Your task to perform on an android device: Add usb-a to usb-b to the cart on walmart Image 0: 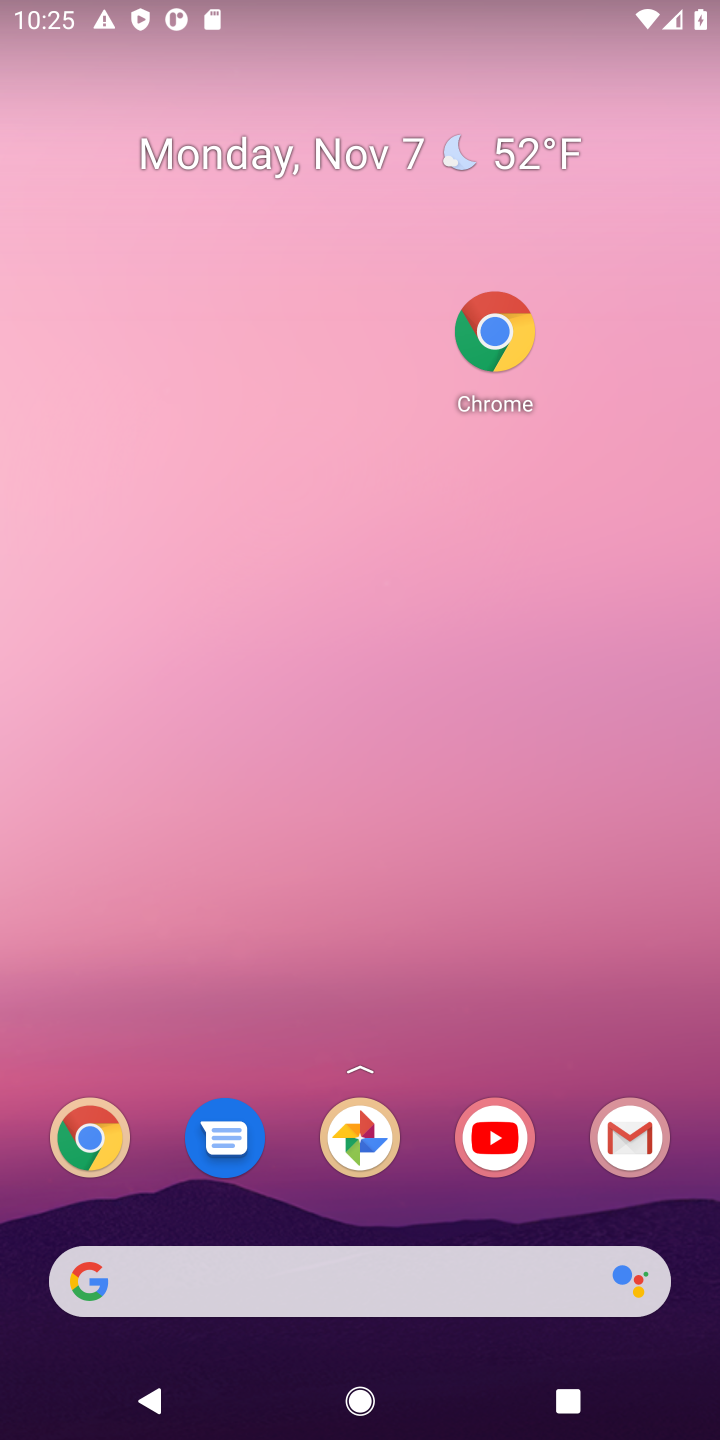
Step 0: drag from (435, 1124) to (323, 159)
Your task to perform on an android device: Add usb-a to usb-b to the cart on walmart Image 1: 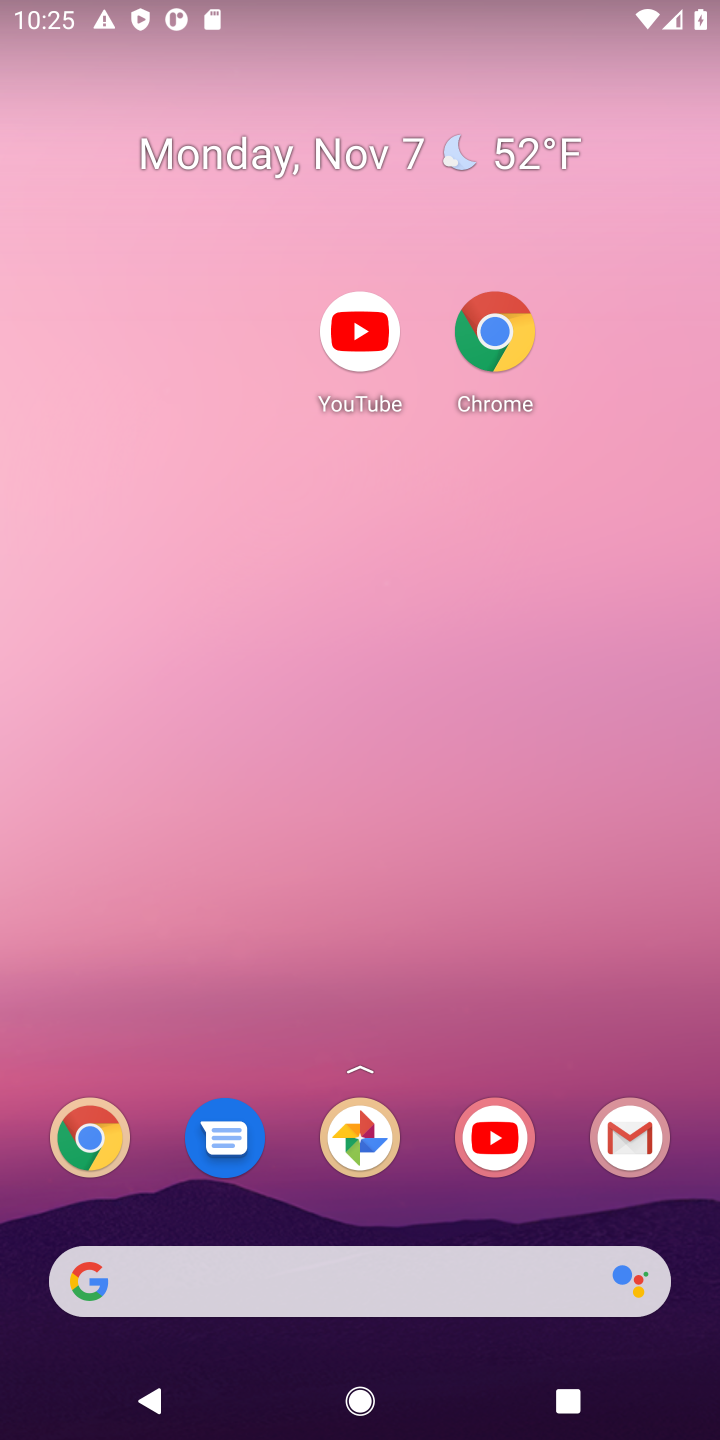
Step 1: drag from (417, 1060) to (363, 226)
Your task to perform on an android device: Add usb-a to usb-b to the cart on walmart Image 2: 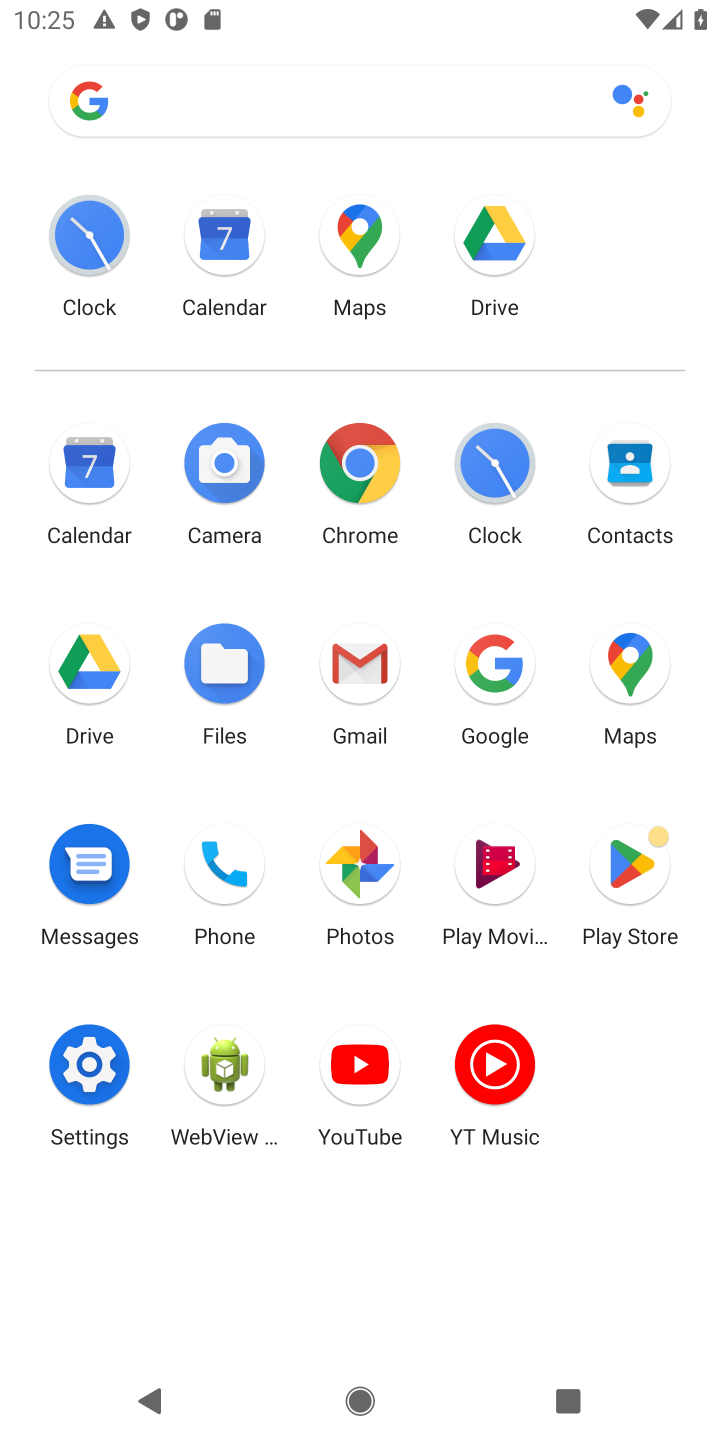
Step 2: click (352, 472)
Your task to perform on an android device: Add usb-a to usb-b to the cart on walmart Image 3: 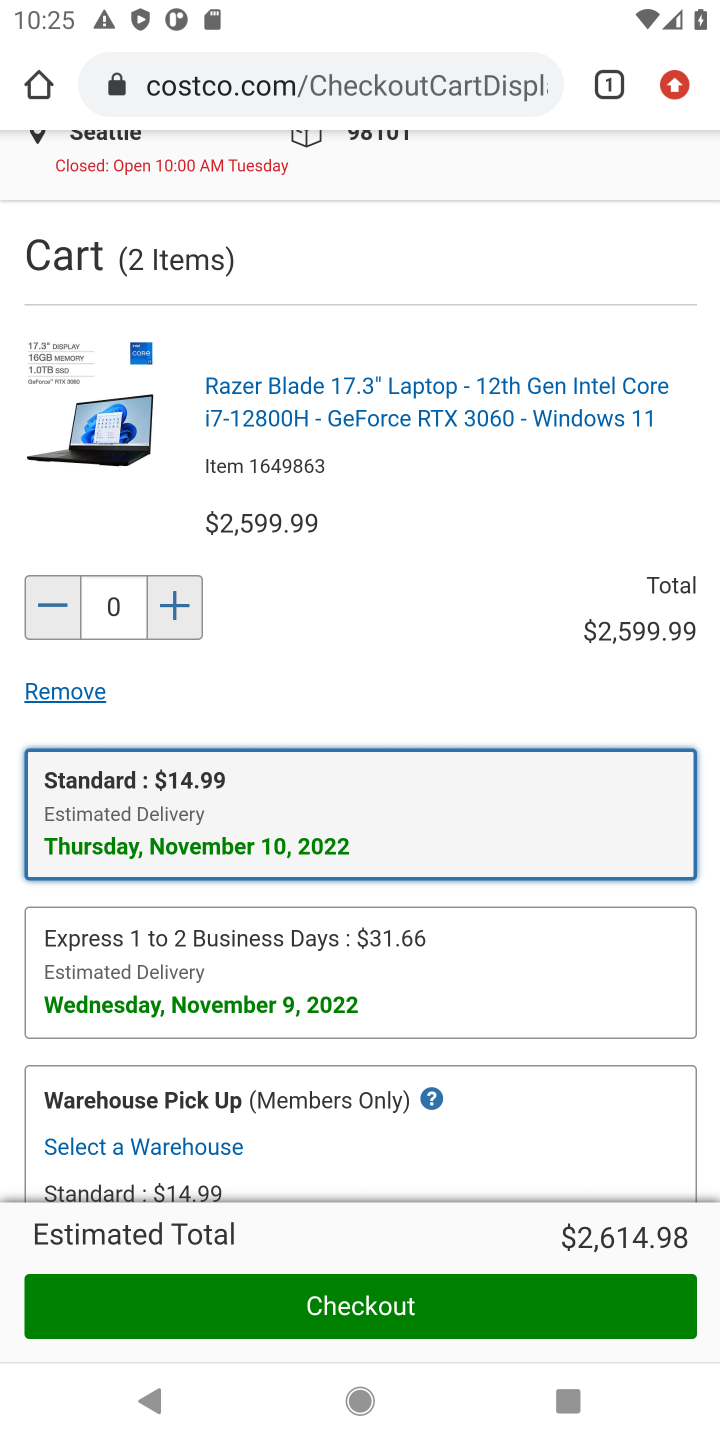
Step 3: click (365, 93)
Your task to perform on an android device: Add usb-a to usb-b to the cart on walmart Image 4: 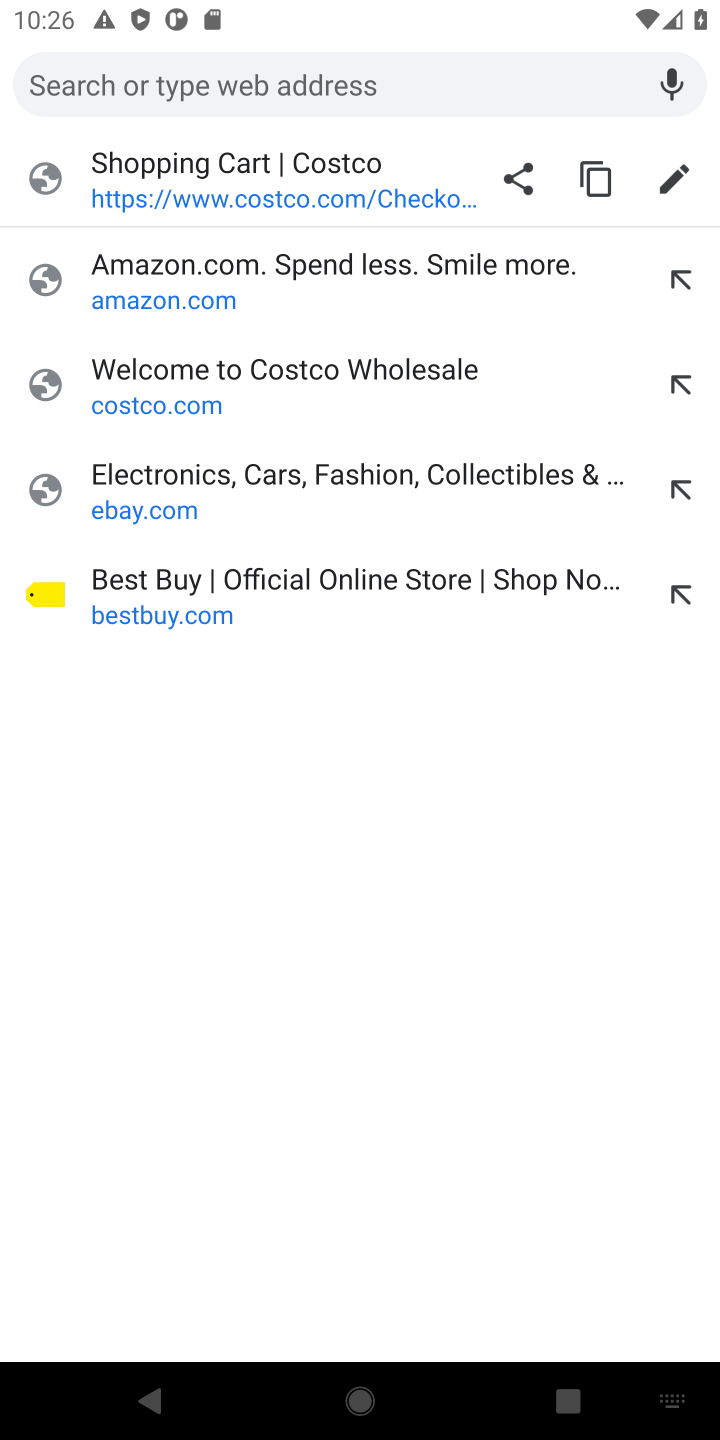
Step 4: type "walmart.com"
Your task to perform on an android device: Add usb-a to usb-b to the cart on walmart Image 5: 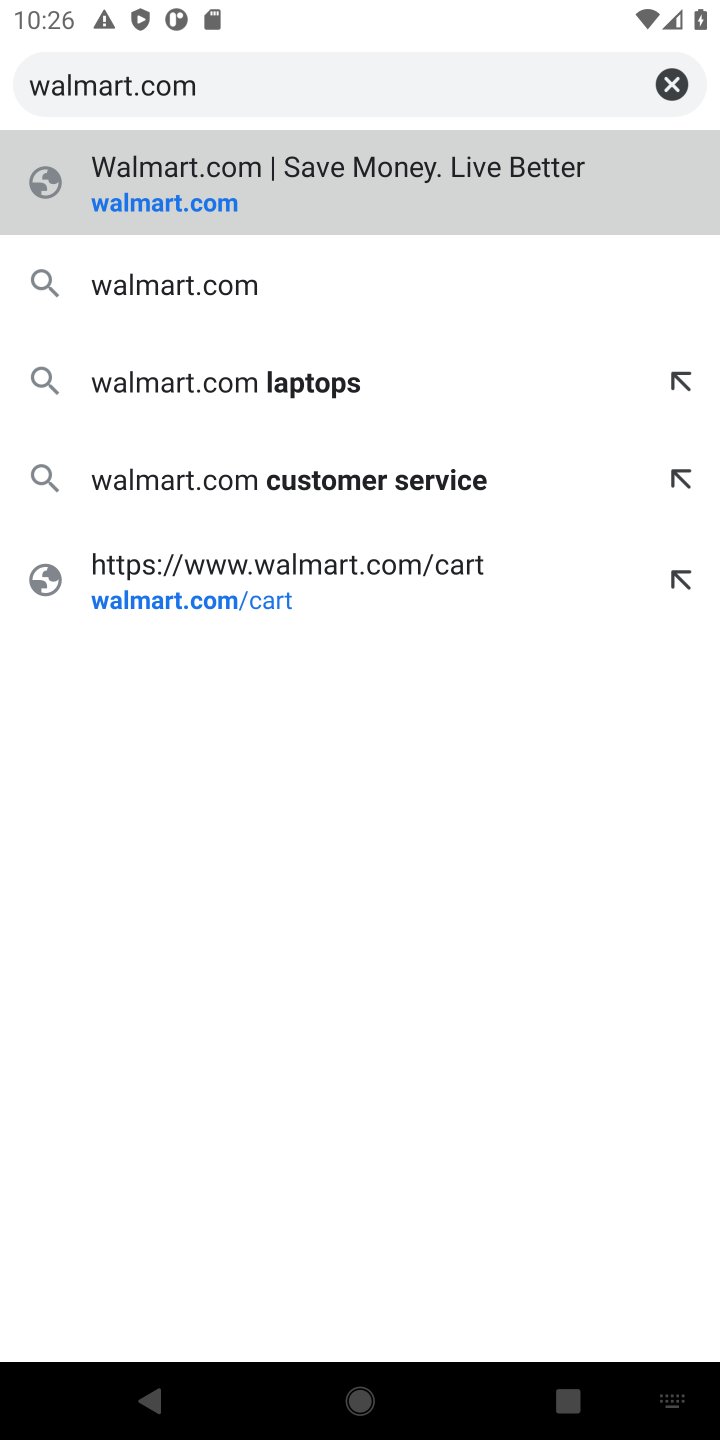
Step 5: press enter
Your task to perform on an android device: Add usb-a to usb-b to the cart on walmart Image 6: 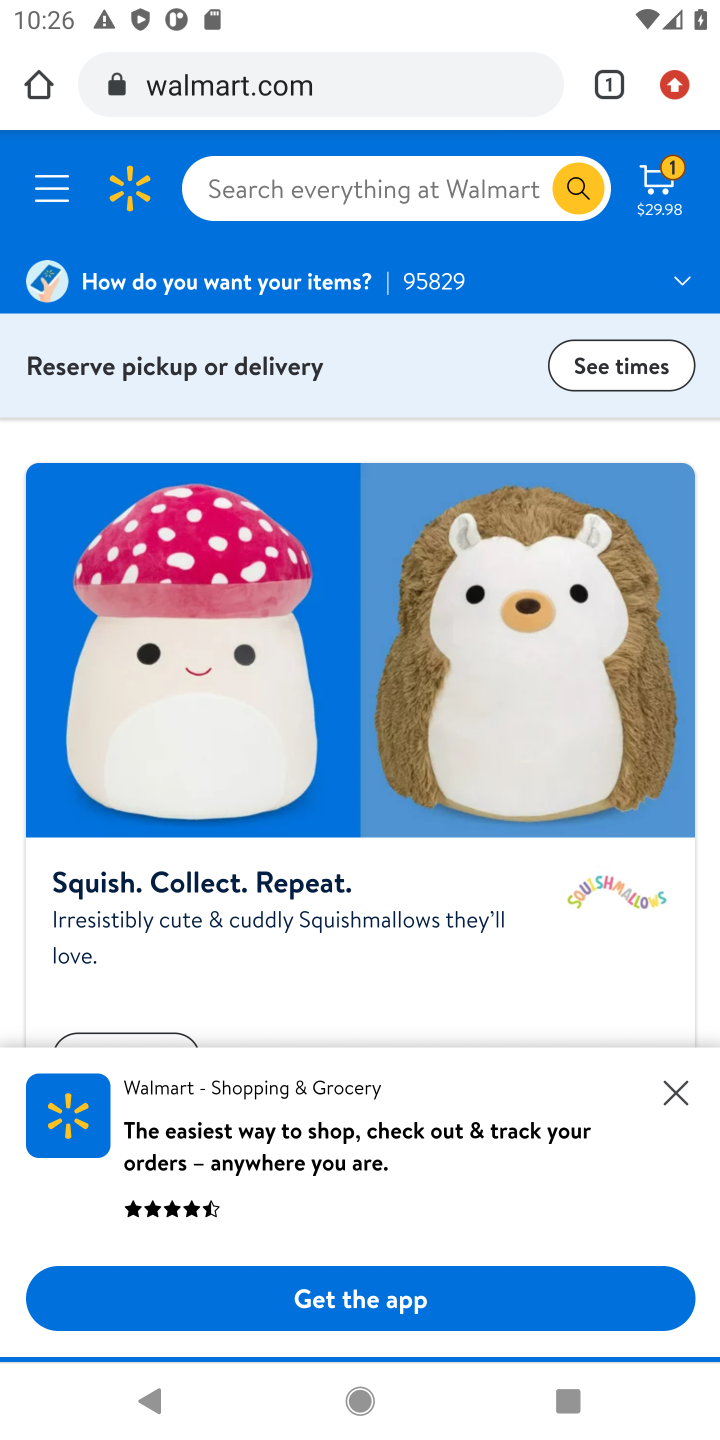
Step 6: click (433, 180)
Your task to perform on an android device: Add usb-a to usb-b to the cart on walmart Image 7: 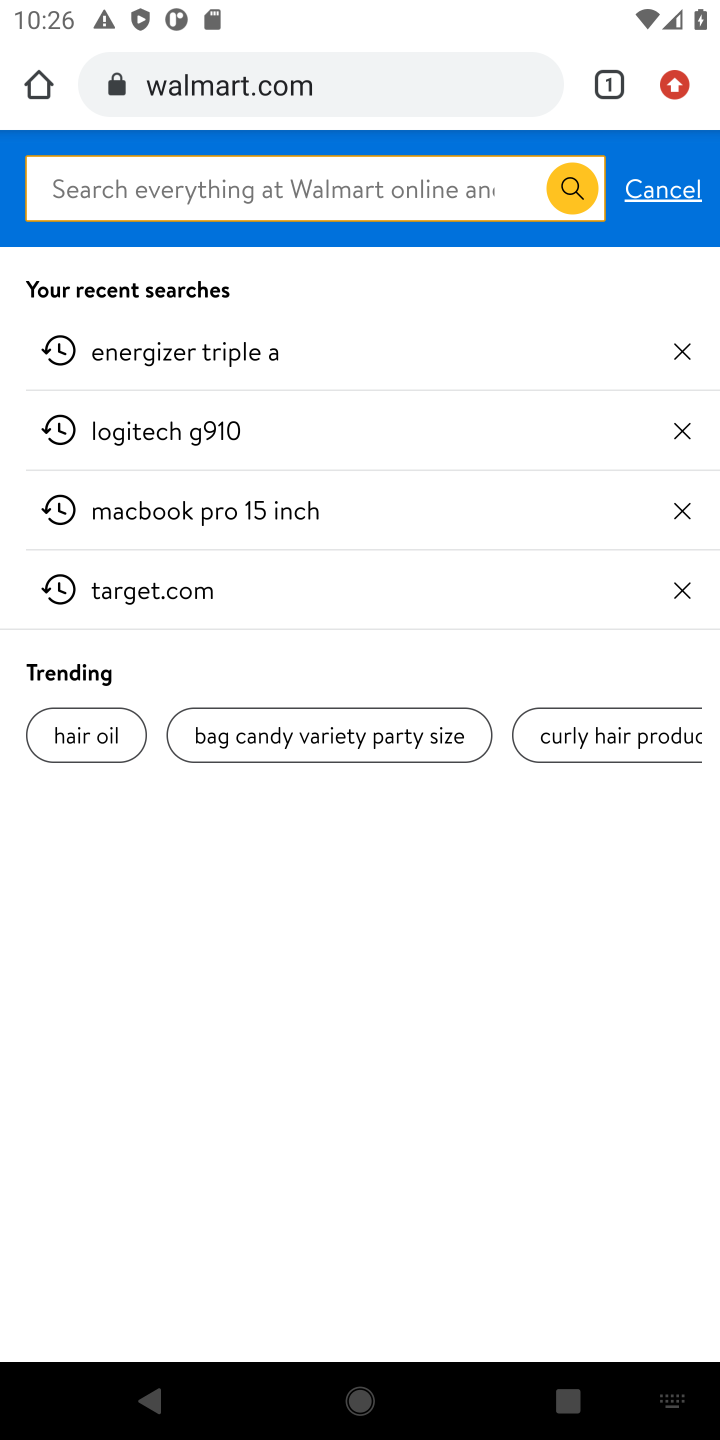
Step 7: type "usb-a to usb-b"
Your task to perform on an android device: Add usb-a to usb-b to the cart on walmart Image 8: 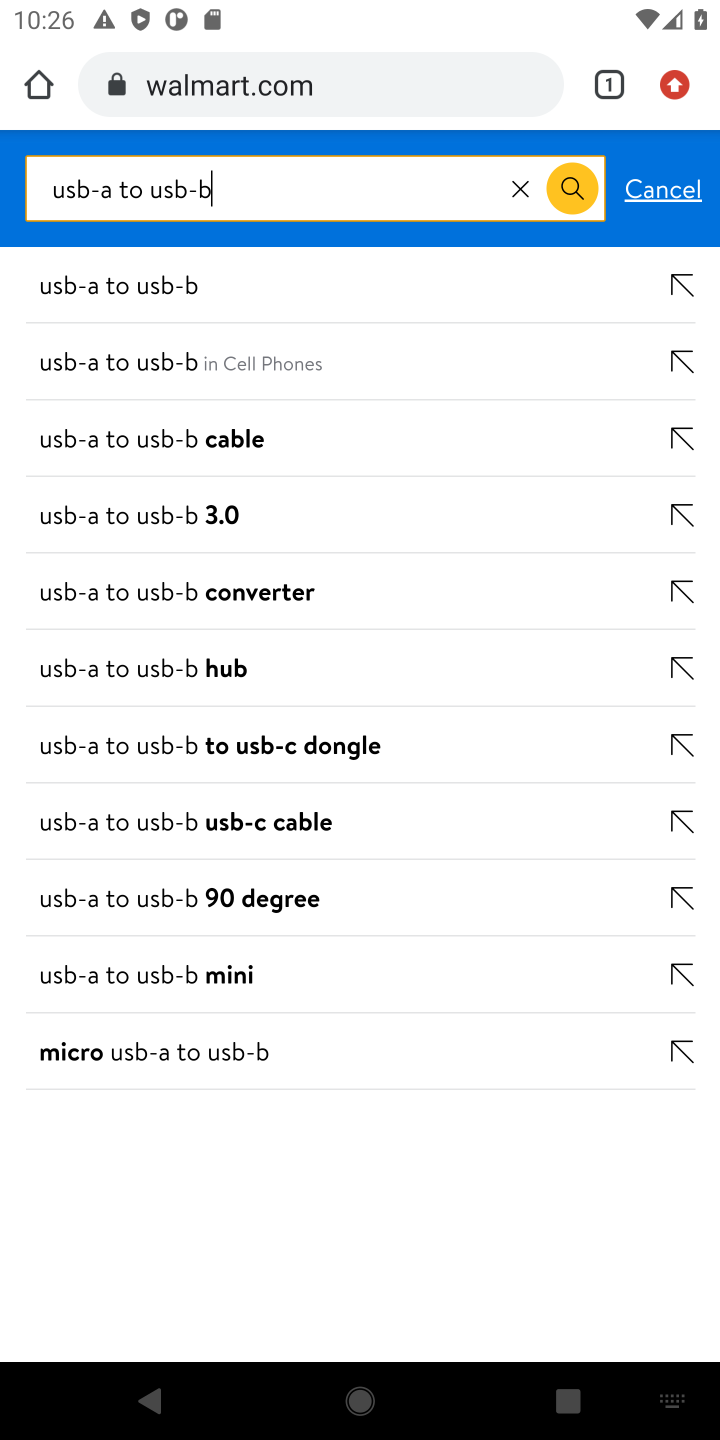
Step 8: press enter
Your task to perform on an android device: Add usb-a to usb-b to the cart on walmart Image 9: 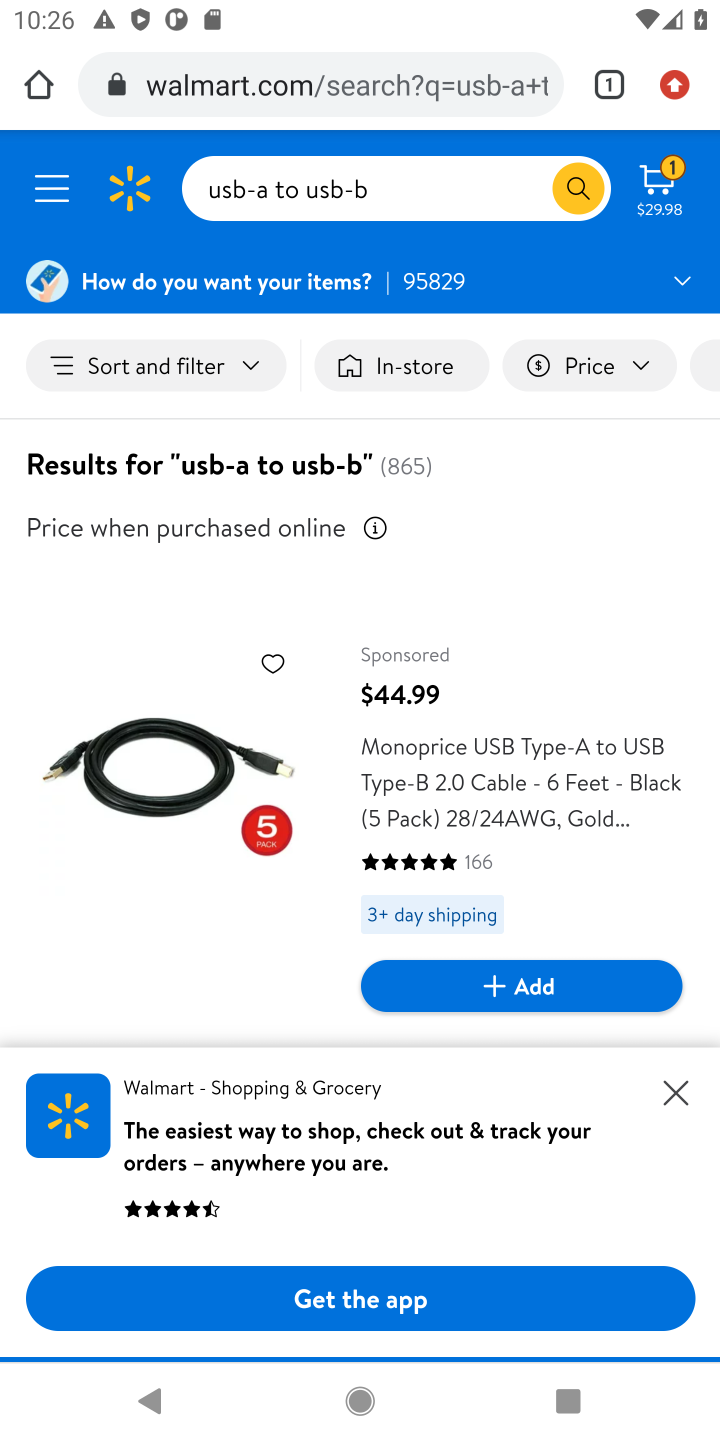
Step 9: drag from (508, 843) to (479, 206)
Your task to perform on an android device: Add usb-a to usb-b to the cart on walmart Image 10: 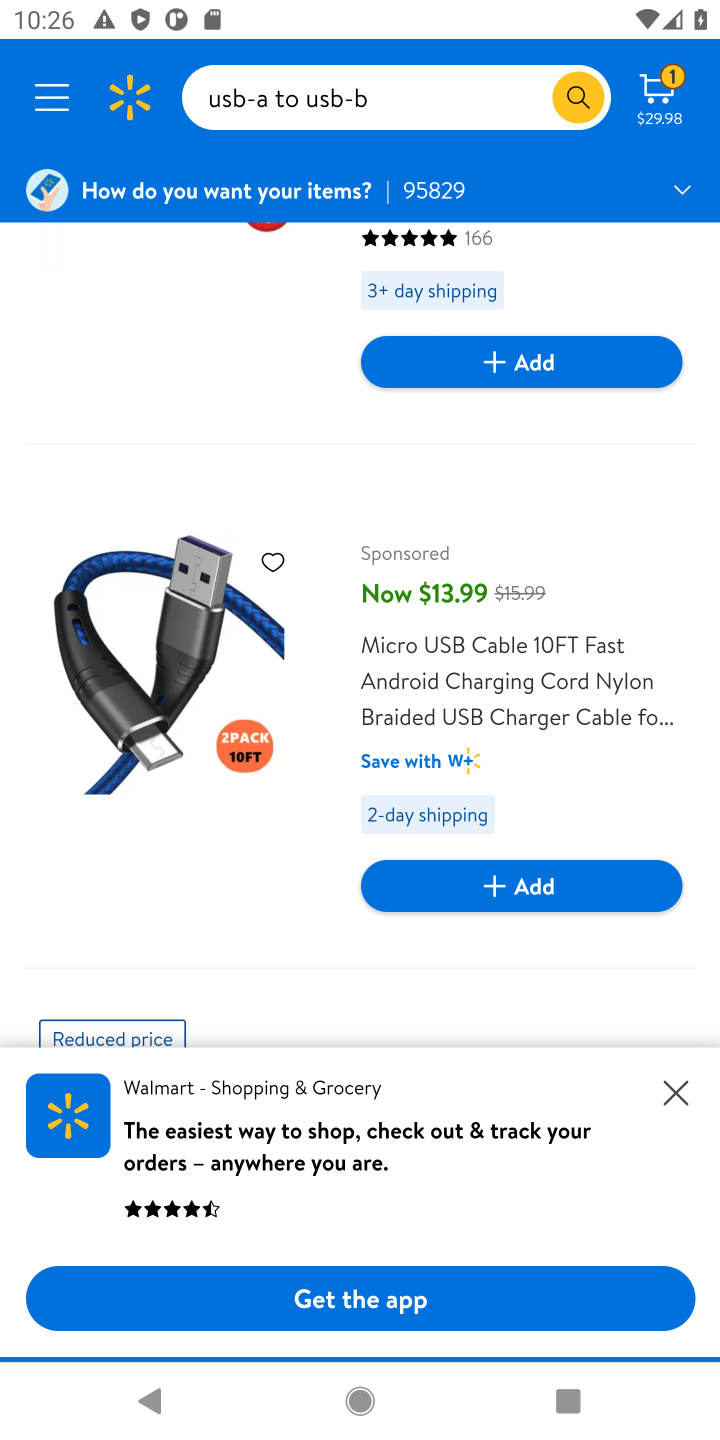
Step 10: drag from (229, 945) to (235, 3)
Your task to perform on an android device: Add usb-a to usb-b to the cart on walmart Image 11: 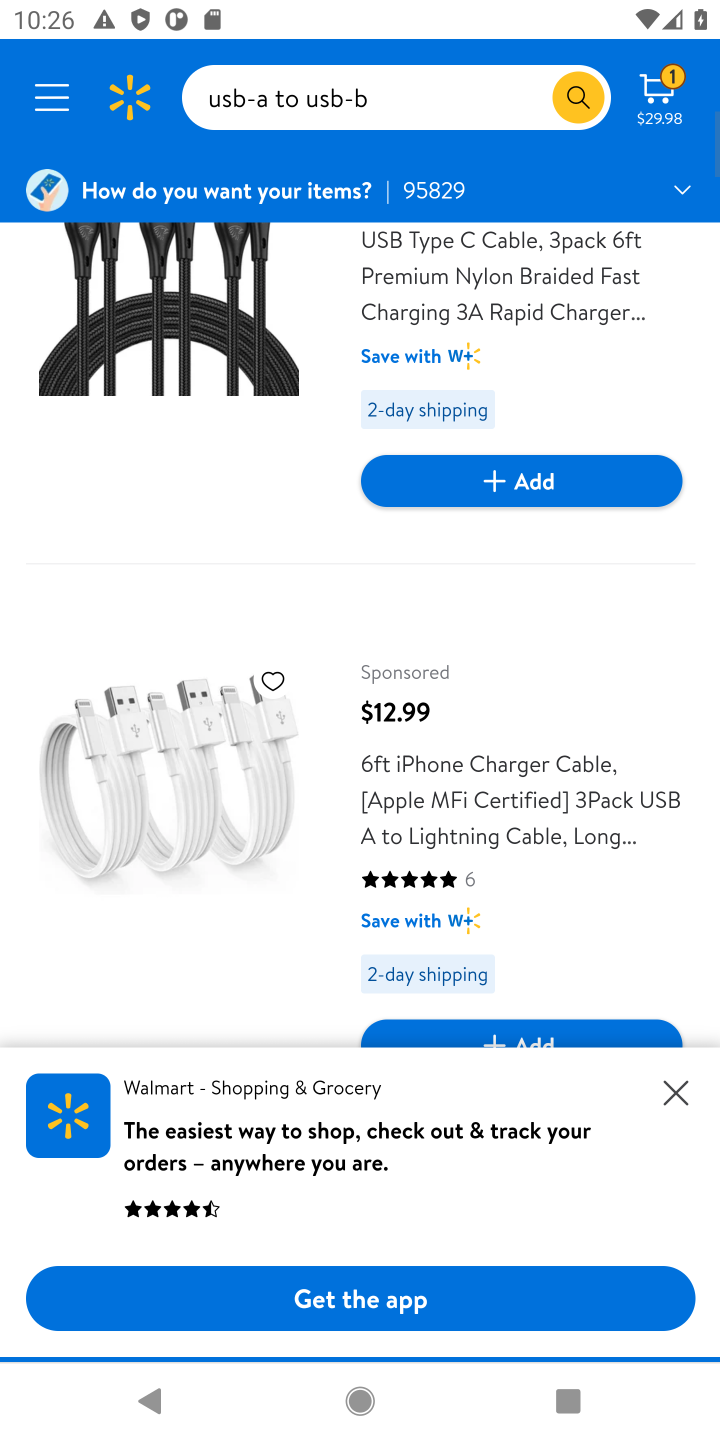
Step 11: drag from (234, 543) to (227, 167)
Your task to perform on an android device: Add usb-a to usb-b to the cart on walmart Image 12: 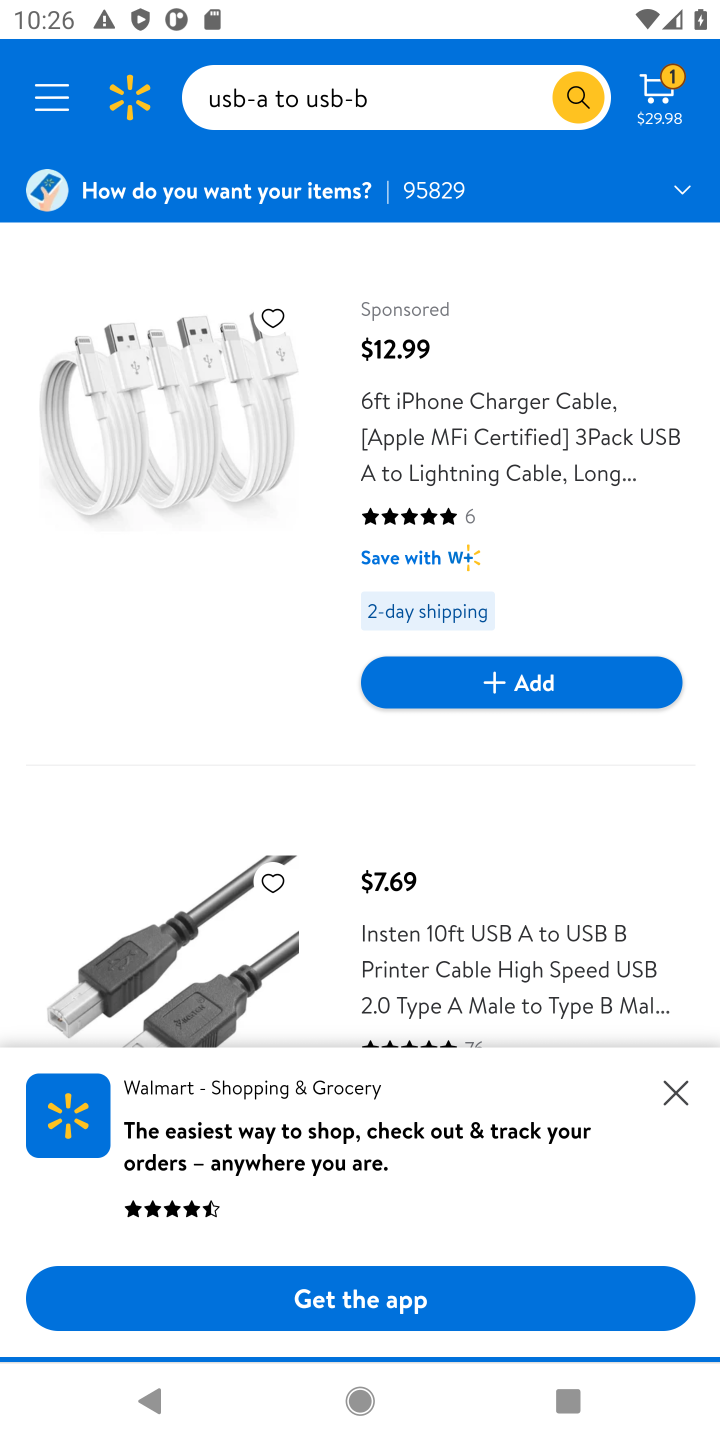
Step 12: drag from (492, 852) to (426, 482)
Your task to perform on an android device: Add usb-a to usb-b to the cart on walmart Image 13: 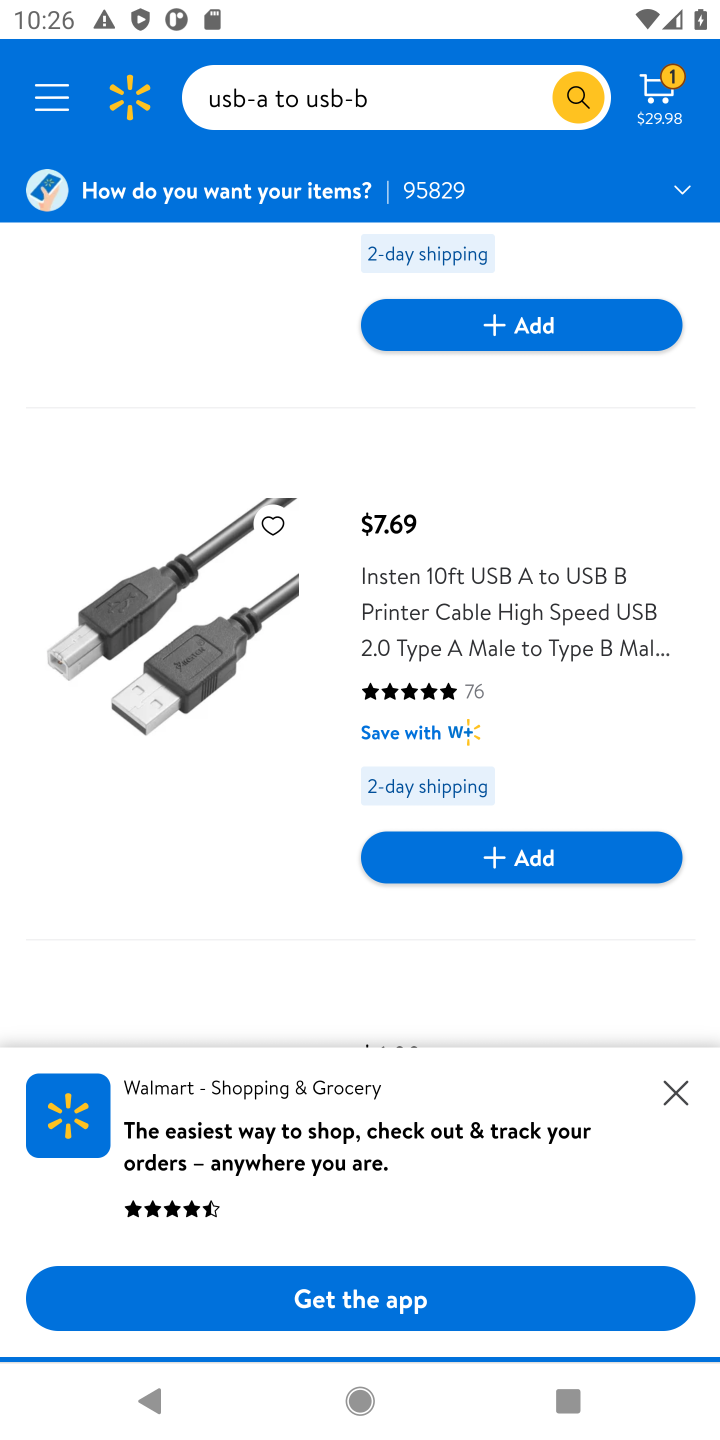
Step 13: click (564, 855)
Your task to perform on an android device: Add usb-a to usb-b to the cart on walmart Image 14: 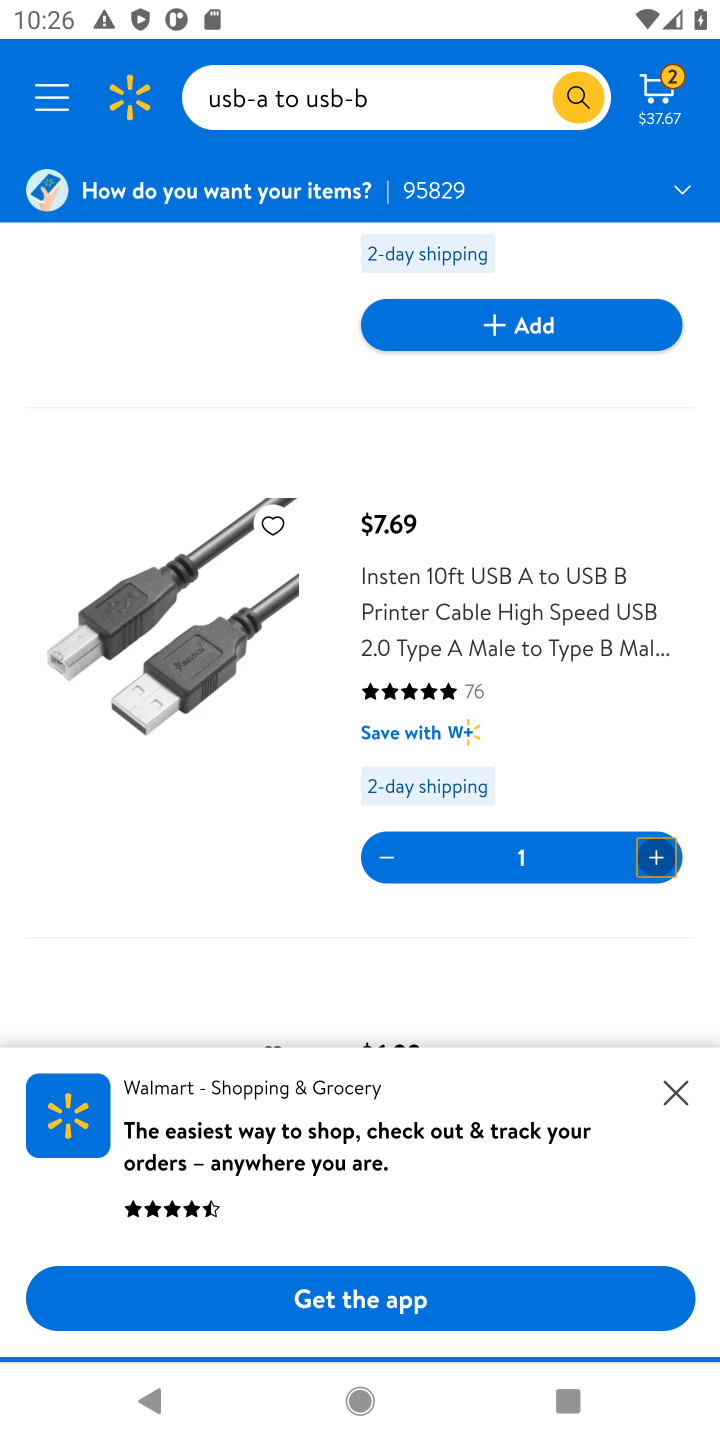
Step 14: click (677, 94)
Your task to perform on an android device: Add usb-a to usb-b to the cart on walmart Image 15: 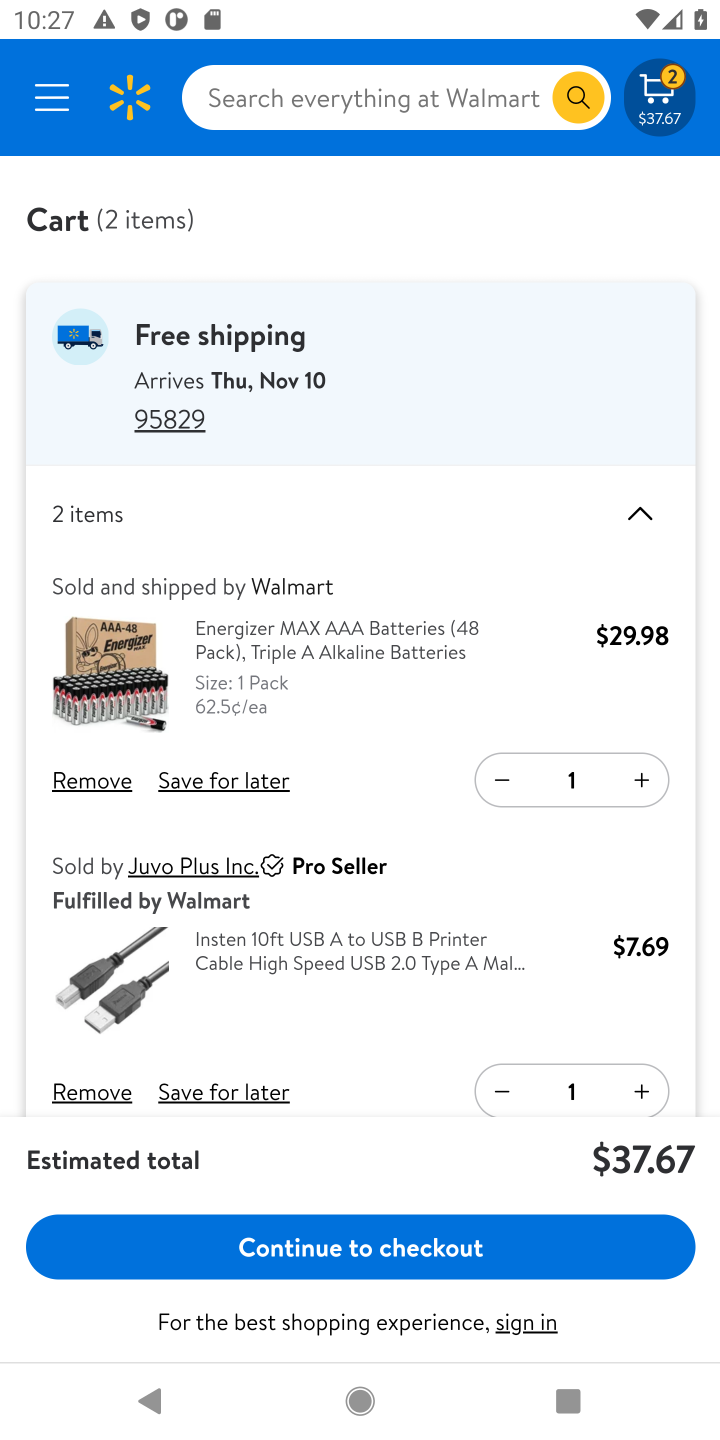
Step 15: click (412, 1239)
Your task to perform on an android device: Add usb-a to usb-b to the cart on walmart Image 16: 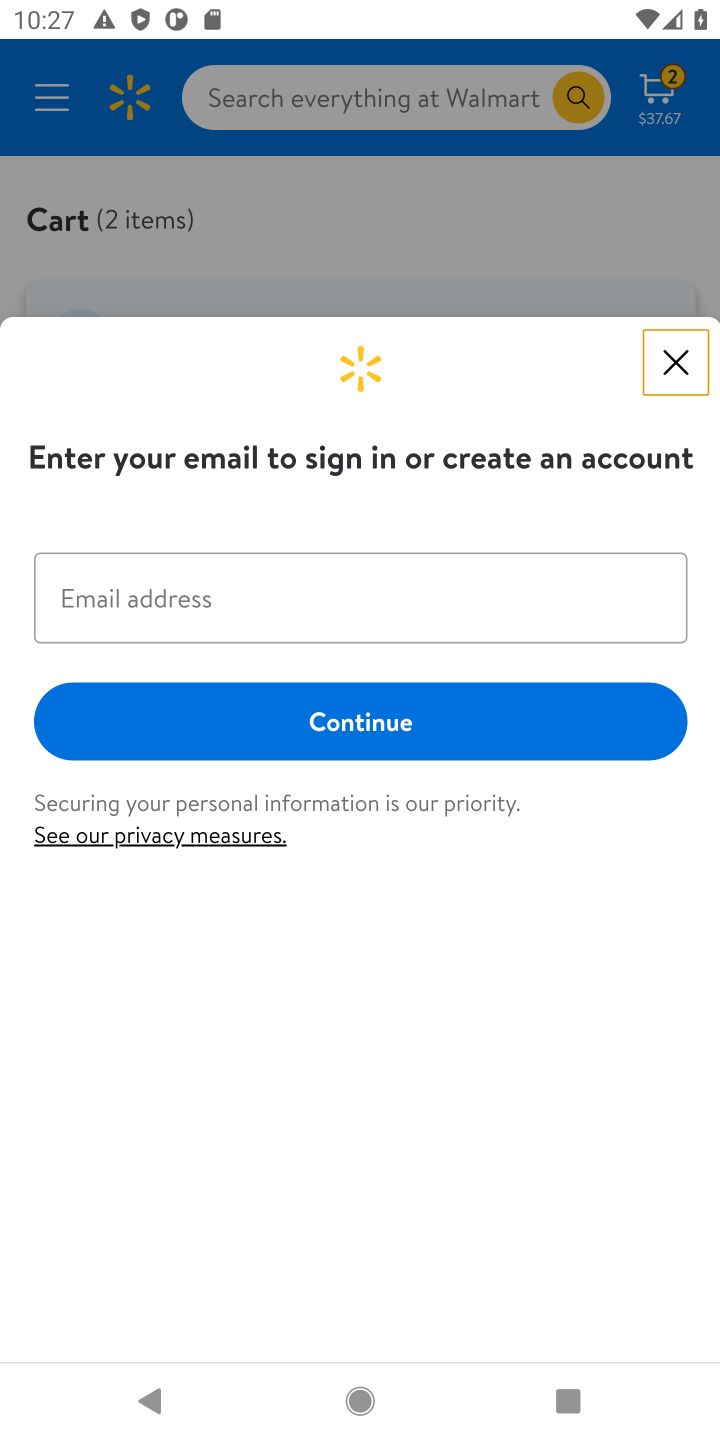
Step 16: task complete